Your task to perform on an android device: Open calendar and show me the fourth week of next month Image 0: 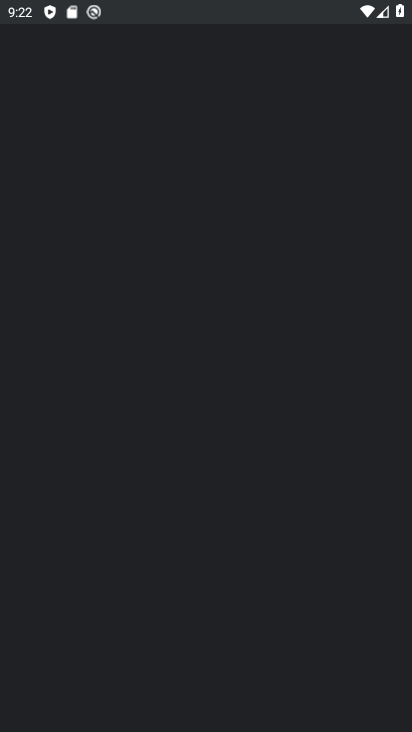
Step 0: drag from (214, 638) to (256, 248)
Your task to perform on an android device: Open calendar and show me the fourth week of next month Image 1: 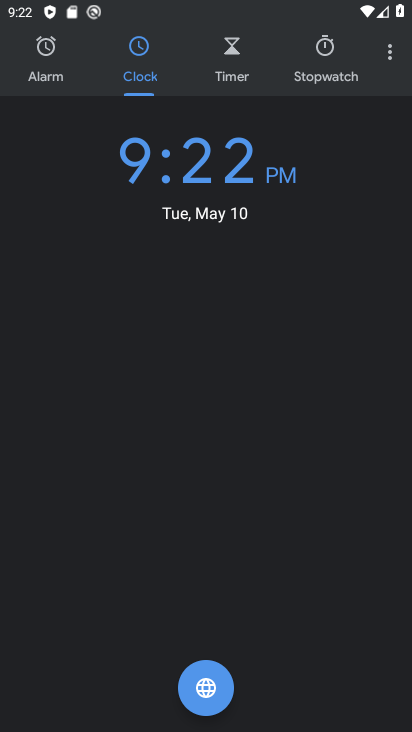
Step 1: press home button
Your task to perform on an android device: Open calendar and show me the fourth week of next month Image 2: 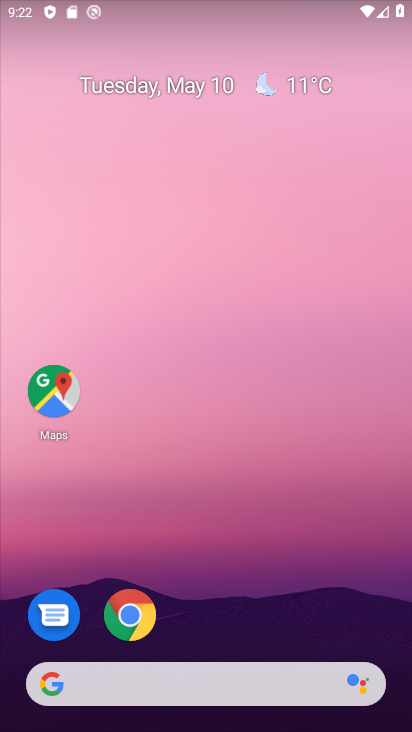
Step 2: drag from (224, 626) to (258, 111)
Your task to perform on an android device: Open calendar and show me the fourth week of next month Image 3: 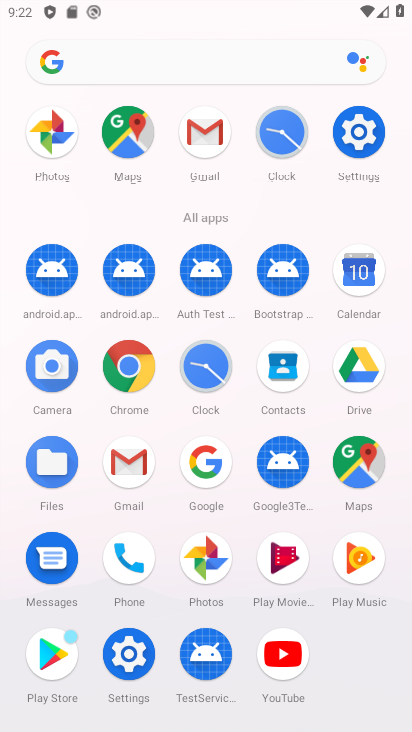
Step 3: click (356, 271)
Your task to perform on an android device: Open calendar and show me the fourth week of next month Image 4: 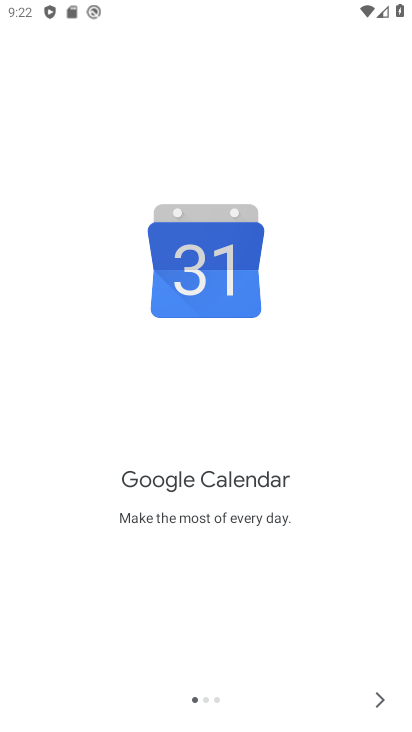
Step 4: click (375, 695)
Your task to perform on an android device: Open calendar and show me the fourth week of next month Image 5: 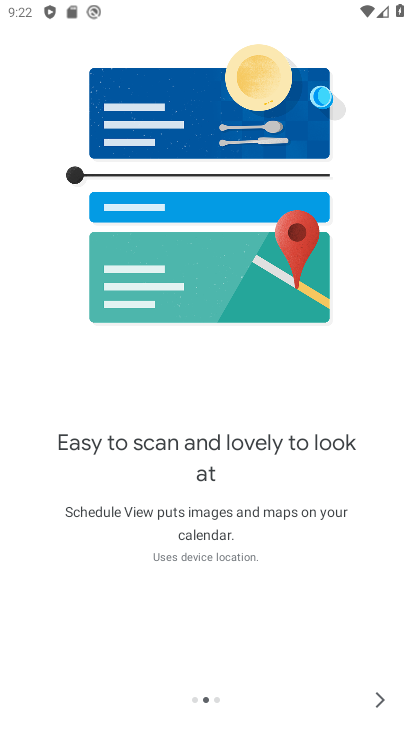
Step 5: click (376, 693)
Your task to perform on an android device: Open calendar and show me the fourth week of next month Image 6: 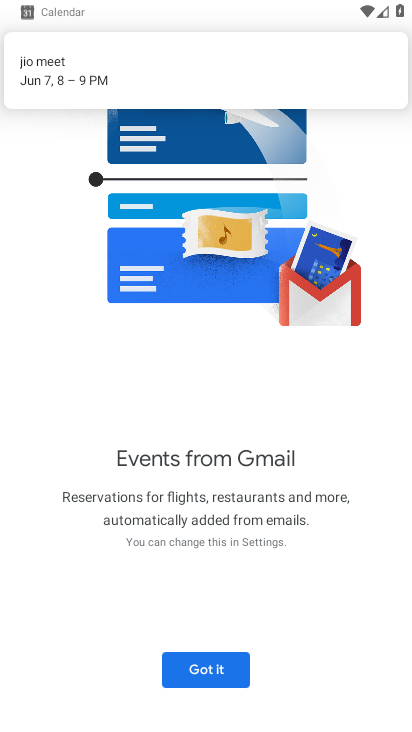
Step 6: click (201, 666)
Your task to perform on an android device: Open calendar and show me the fourth week of next month Image 7: 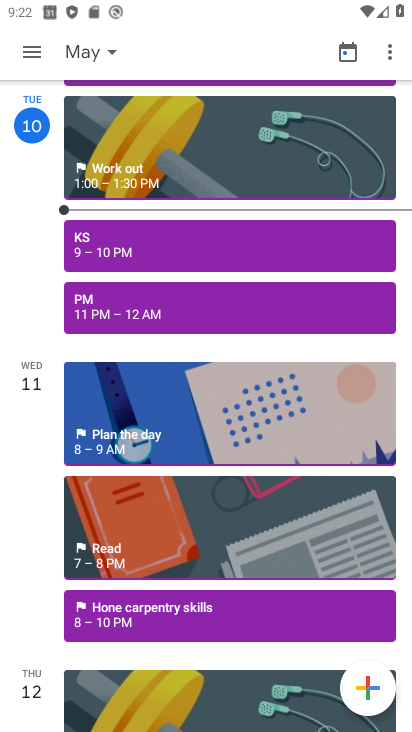
Step 7: click (31, 44)
Your task to perform on an android device: Open calendar and show me the fourth week of next month Image 8: 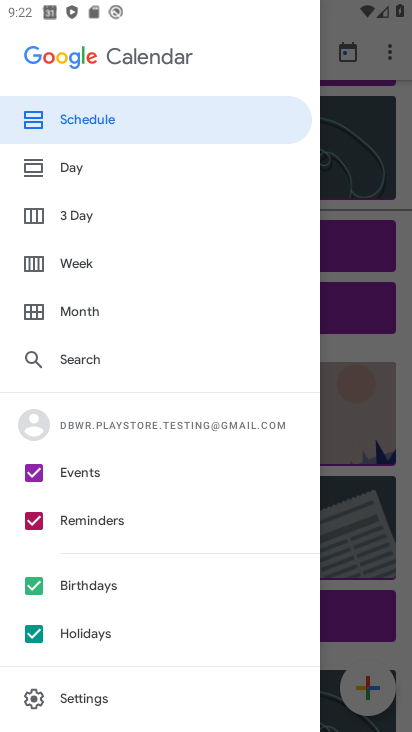
Step 8: click (108, 258)
Your task to perform on an android device: Open calendar and show me the fourth week of next month Image 9: 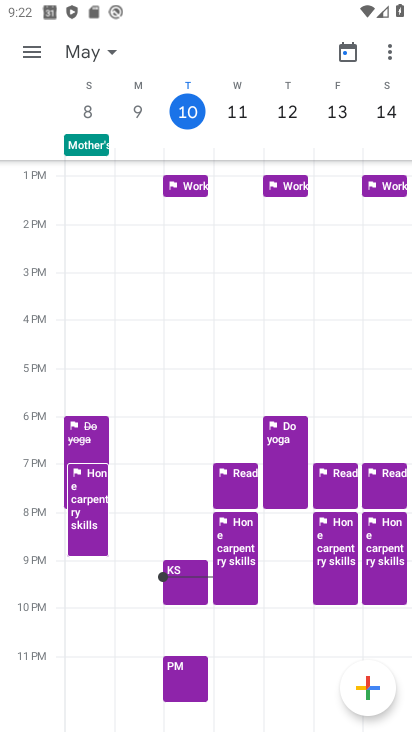
Step 9: drag from (382, 100) to (67, 112)
Your task to perform on an android device: Open calendar and show me the fourth week of next month Image 10: 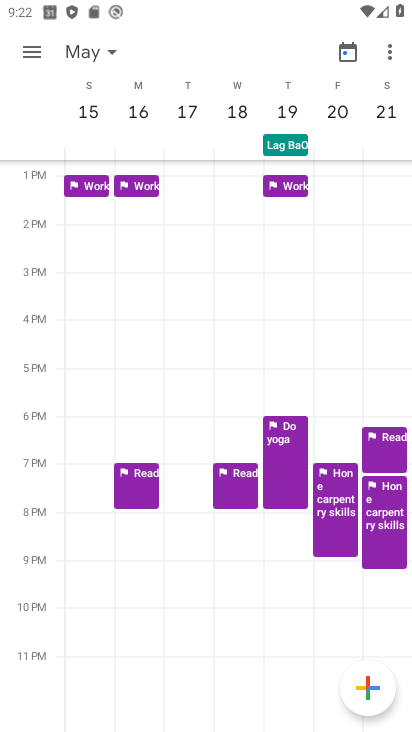
Step 10: drag from (373, 105) to (59, 109)
Your task to perform on an android device: Open calendar and show me the fourth week of next month Image 11: 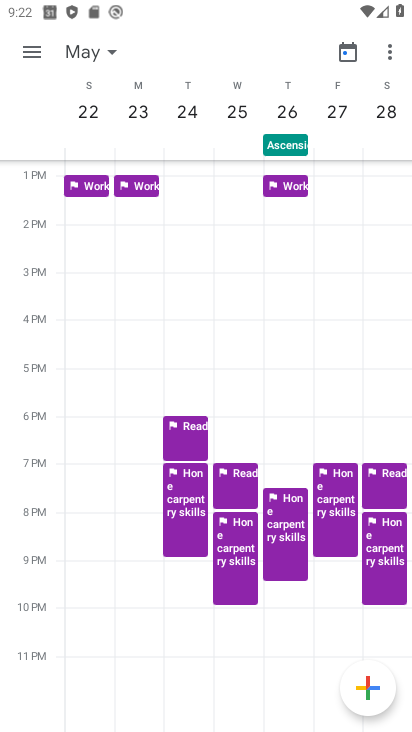
Step 11: drag from (386, 109) to (75, 118)
Your task to perform on an android device: Open calendar and show me the fourth week of next month Image 12: 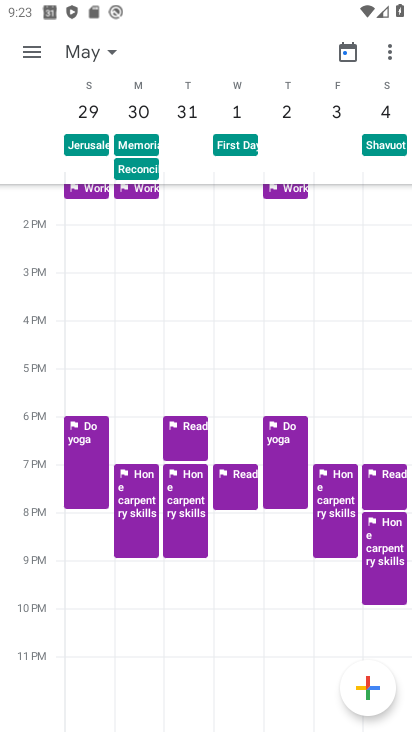
Step 12: drag from (384, 117) to (91, 146)
Your task to perform on an android device: Open calendar and show me the fourth week of next month Image 13: 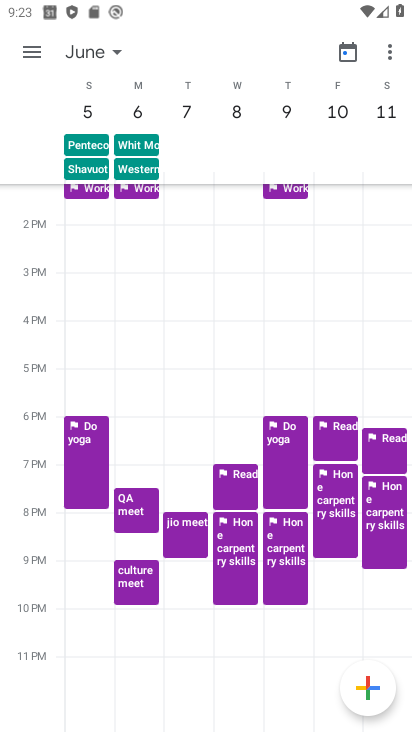
Step 13: drag from (159, 112) to (19, 108)
Your task to perform on an android device: Open calendar and show me the fourth week of next month Image 14: 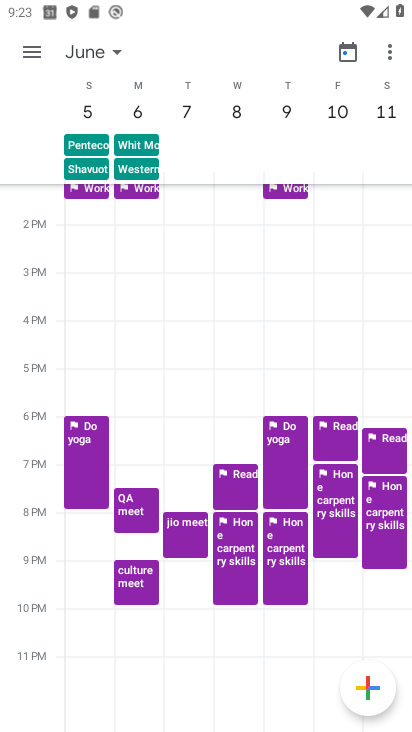
Step 14: drag from (392, 104) to (43, 111)
Your task to perform on an android device: Open calendar and show me the fourth week of next month Image 15: 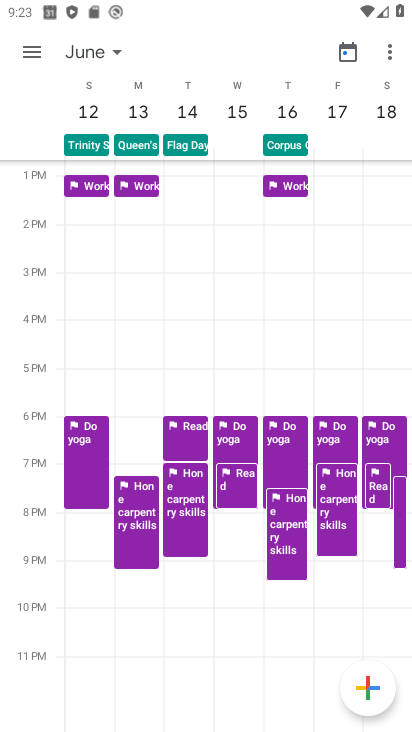
Step 15: drag from (394, 114) to (91, 110)
Your task to perform on an android device: Open calendar and show me the fourth week of next month Image 16: 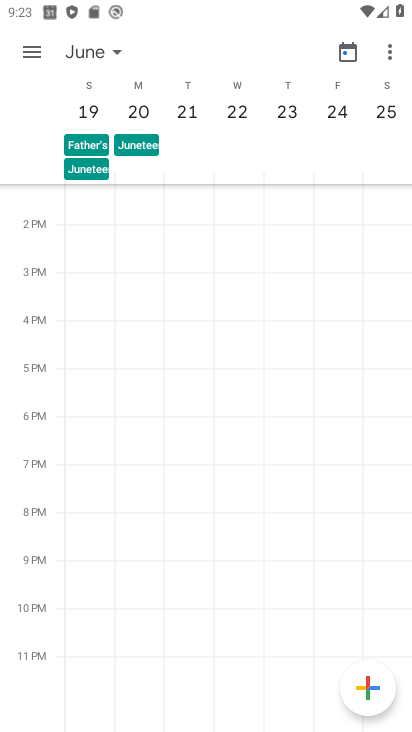
Step 16: drag from (384, 118) to (44, 117)
Your task to perform on an android device: Open calendar and show me the fourth week of next month Image 17: 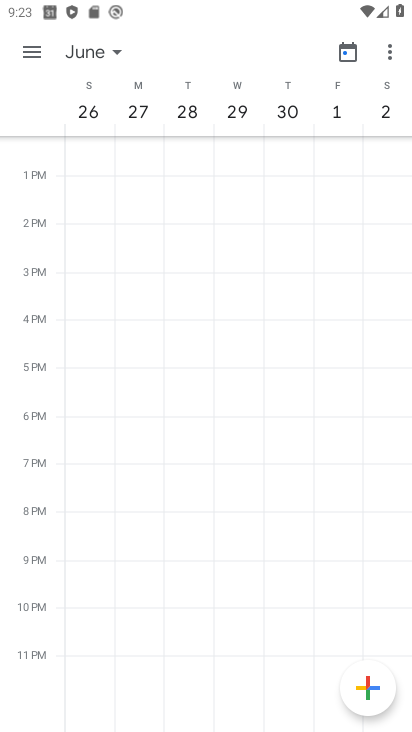
Step 17: click (80, 105)
Your task to perform on an android device: Open calendar and show me the fourth week of next month Image 18: 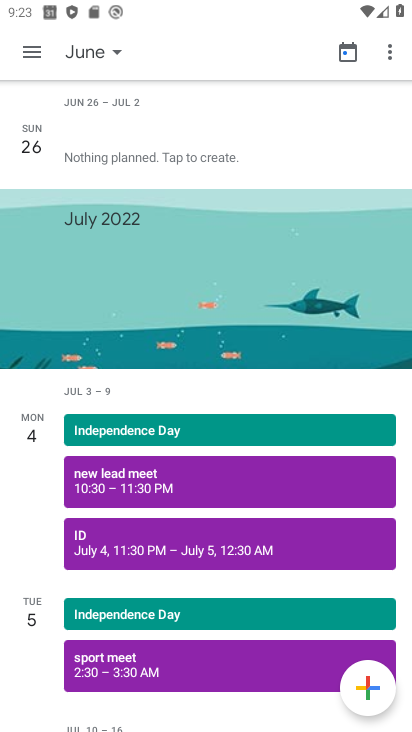
Step 18: task complete